Your task to perform on an android device: Find coffee shops on Maps Image 0: 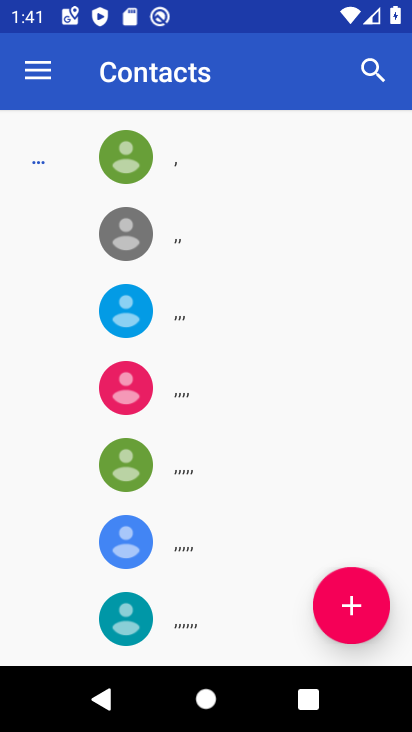
Step 0: press home button
Your task to perform on an android device: Find coffee shops on Maps Image 1: 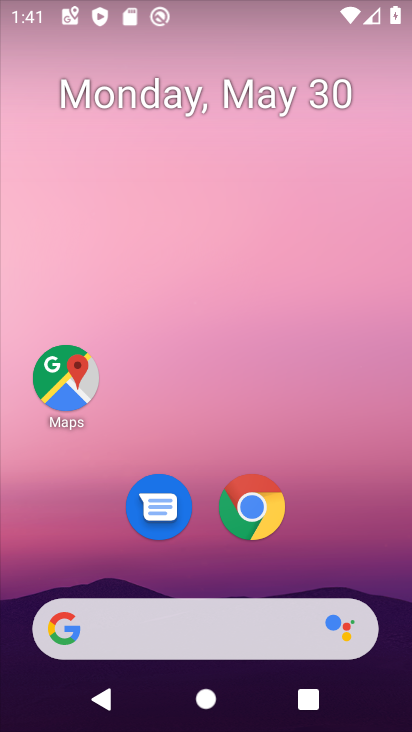
Step 1: drag from (186, 585) to (119, 0)
Your task to perform on an android device: Find coffee shops on Maps Image 2: 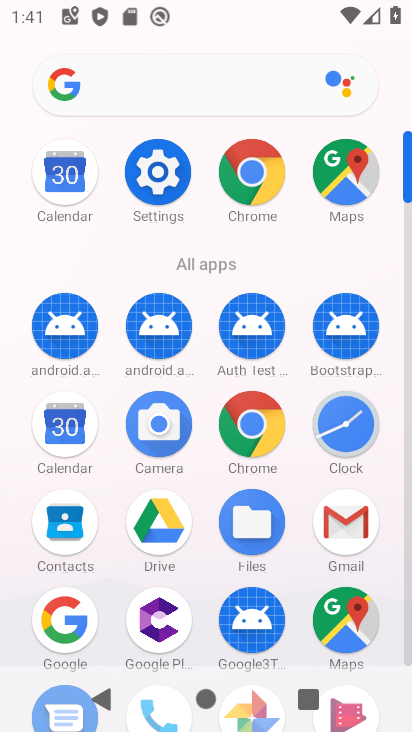
Step 2: click (348, 200)
Your task to perform on an android device: Find coffee shops on Maps Image 3: 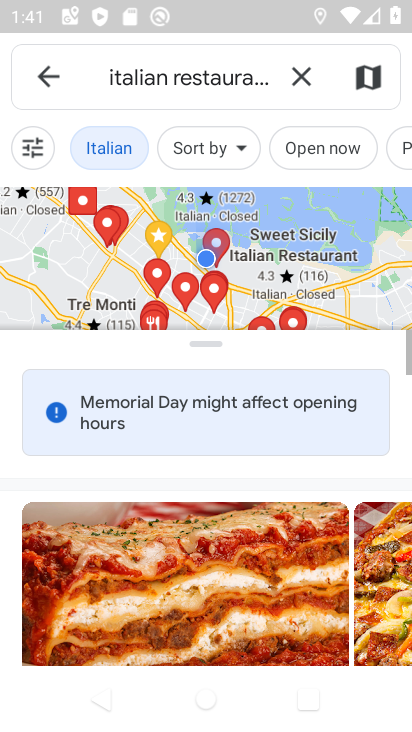
Step 3: click (291, 86)
Your task to perform on an android device: Find coffee shops on Maps Image 4: 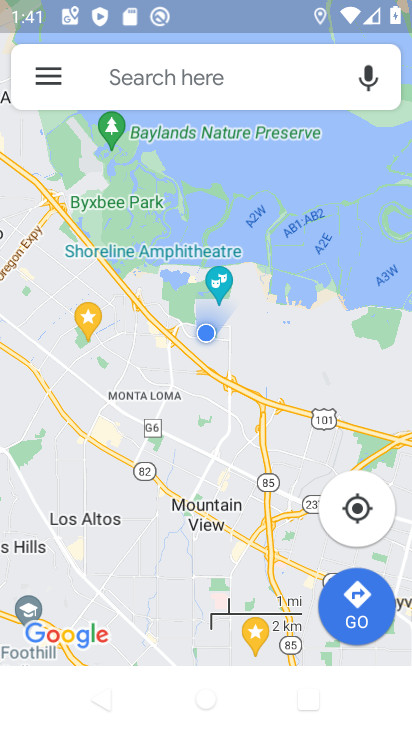
Step 4: click (182, 90)
Your task to perform on an android device: Find coffee shops on Maps Image 5: 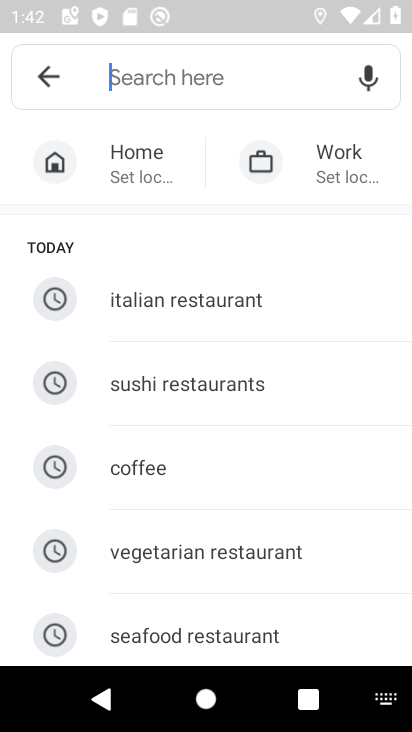
Step 5: type "coffee shops"
Your task to perform on an android device: Find coffee shops on Maps Image 6: 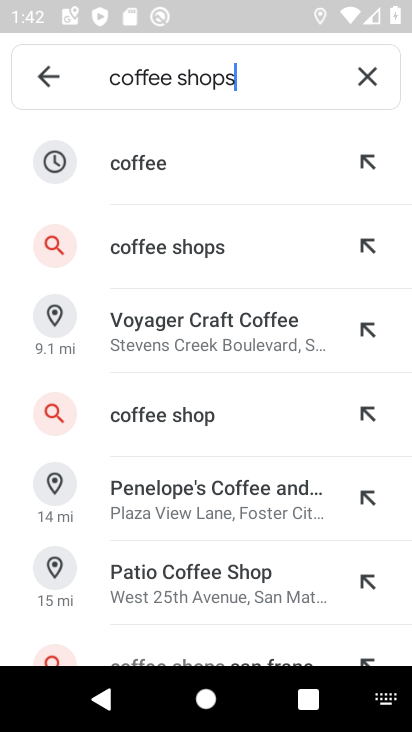
Step 6: click (235, 260)
Your task to perform on an android device: Find coffee shops on Maps Image 7: 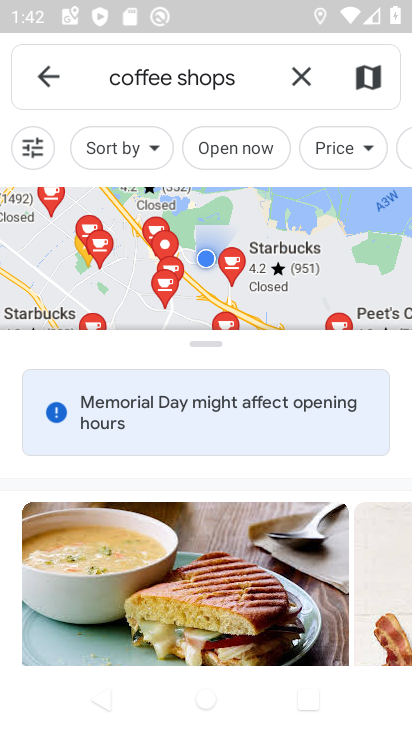
Step 7: task complete